Your task to perform on an android device: Show me popular games on the Play Store Image 0: 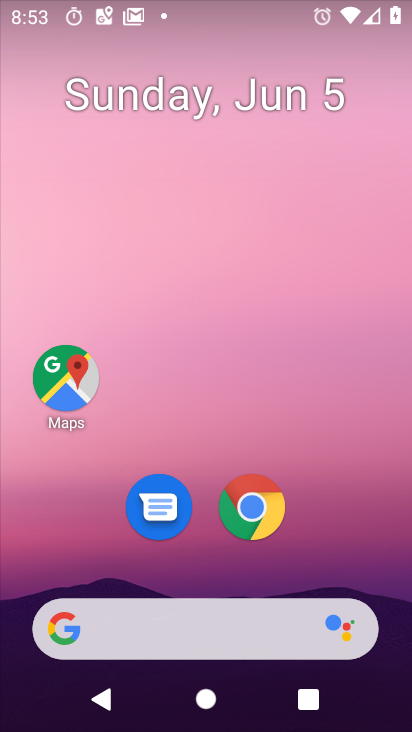
Step 0: drag from (249, 632) to (230, 46)
Your task to perform on an android device: Show me popular games on the Play Store Image 1: 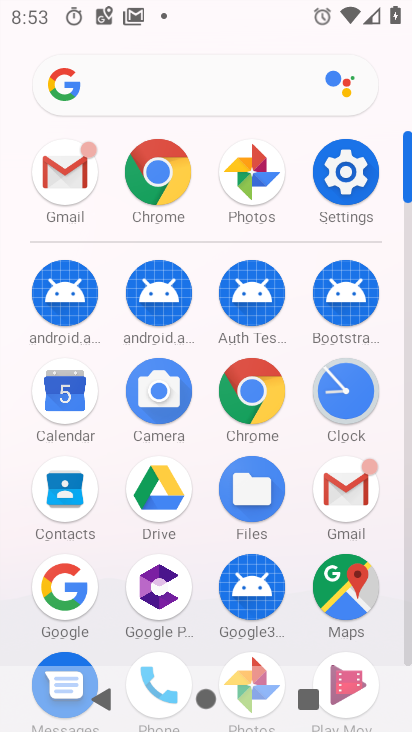
Step 1: drag from (204, 601) to (158, 426)
Your task to perform on an android device: Show me popular games on the Play Store Image 2: 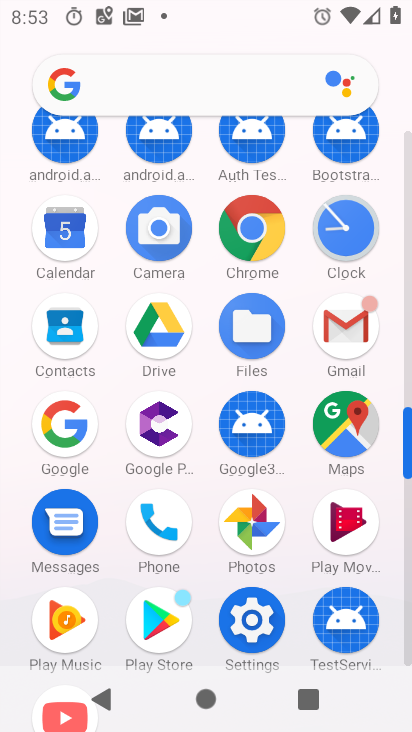
Step 2: click (169, 609)
Your task to perform on an android device: Show me popular games on the Play Store Image 3: 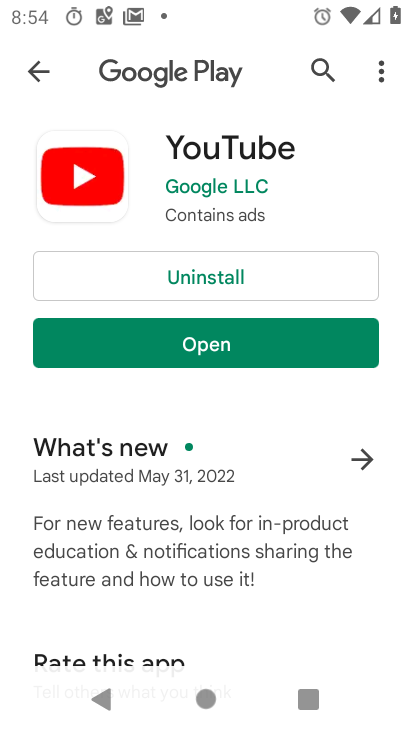
Step 3: click (202, 353)
Your task to perform on an android device: Show me popular games on the Play Store Image 4: 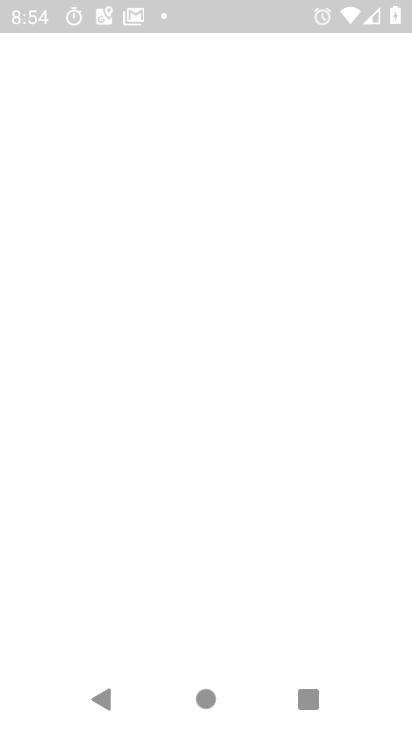
Step 4: press back button
Your task to perform on an android device: Show me popular games on the Play Store Image 5: 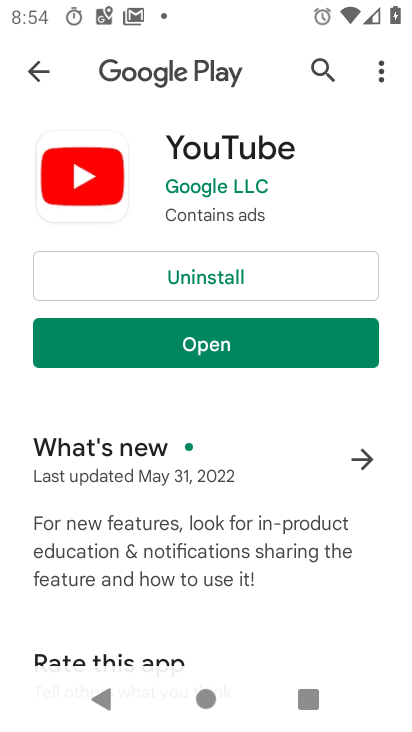
Step 5: click (321, 69)
Your task to perform on an android device: Show me popular games on the Play Store Image 6: 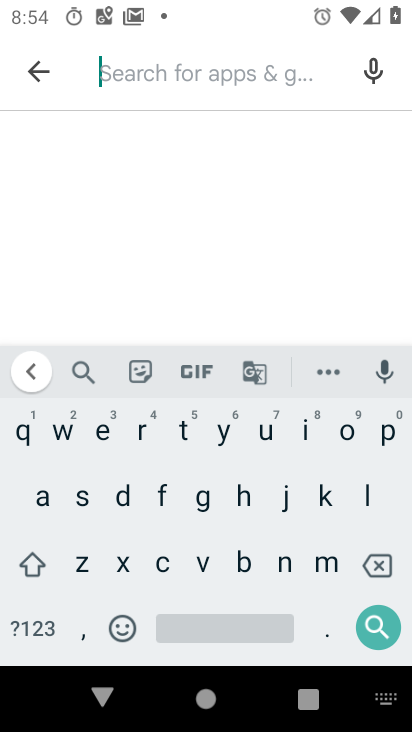
Step 6: click (396, 438)
Your task to perform on an android device: Show me popular games on the Play Store Image 7: 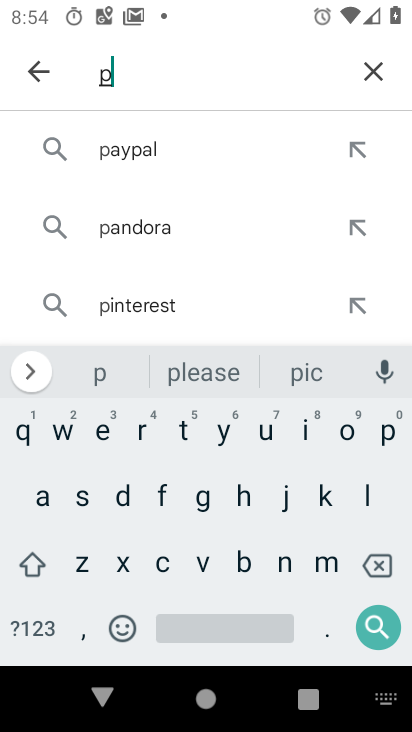
Step 7: click (346, 433)
Your task to perform on an android device: Show me popular games on the Play Store Image 8: 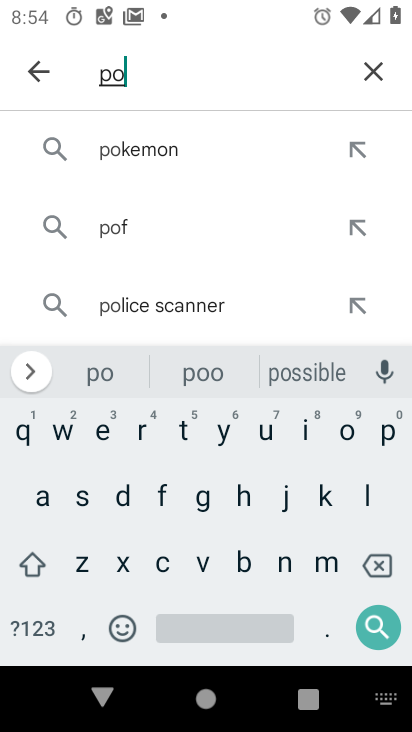
Step 8: click (384, 433)
Your task to perform on an android device: Show me popular games on the Play Store Image 9: 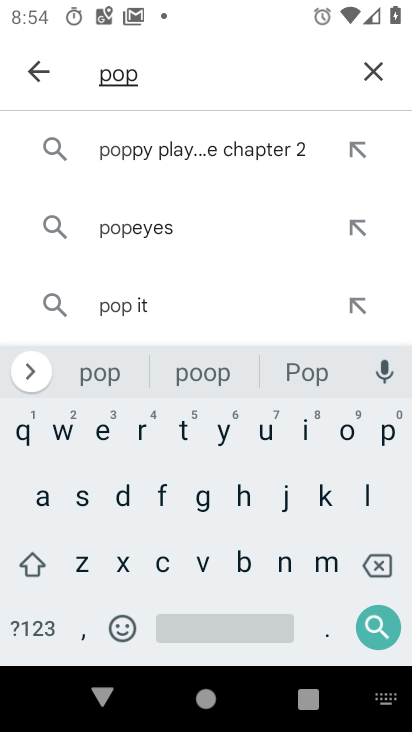
Step 9: click (266, 440)
Your task to perform on an android device: Show me popular games on the Play Store Image 10: 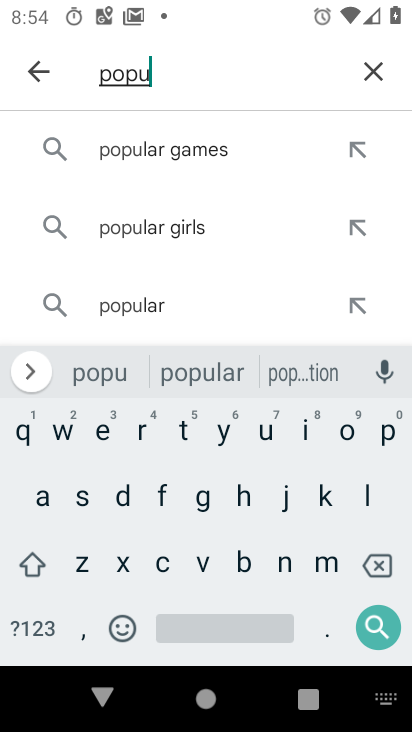
Step 10: click (203, 372)
Your task to perform on an android device: Show me popular games on the Play Store Image 11: 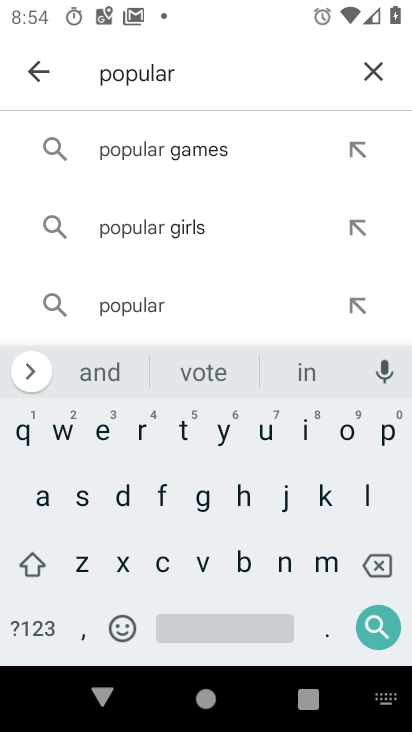
Step 11: click (203, 501)
Your task to perform on an android device: Show me popular games on the Play Store Image 12: 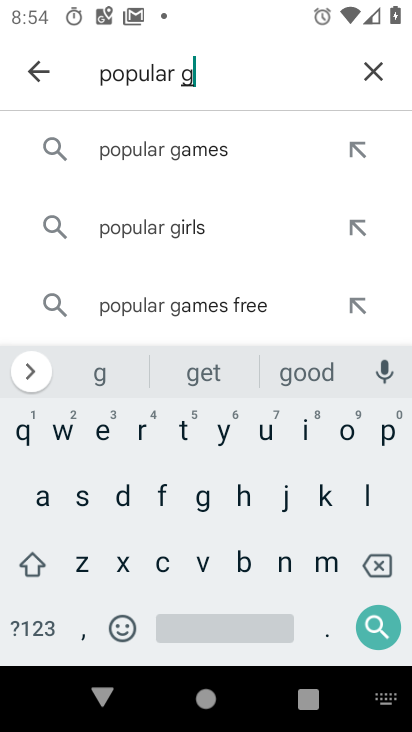
Step 12: click (202, 155)
Your task to perform on an android device: Show me popular games on the Play Store Image 13: 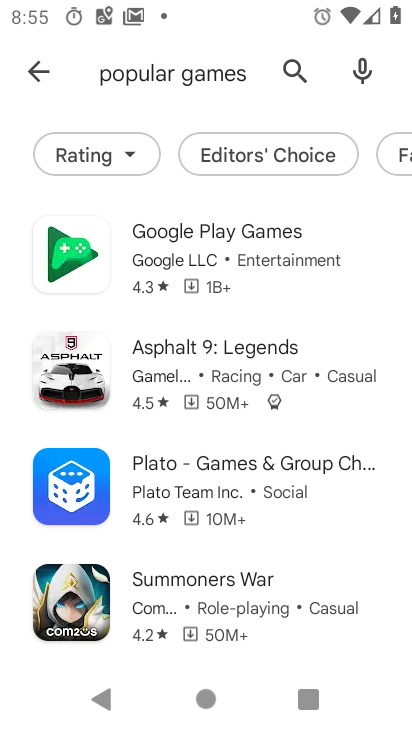
Step 13: task complete